Your task to perform on an android device: set the timer Image 0: 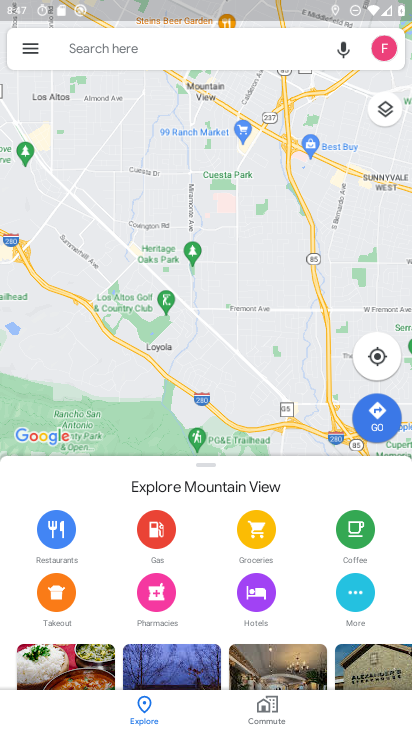
Step 0: press home button
Your task to perform on an android device: set the timer Image 1: 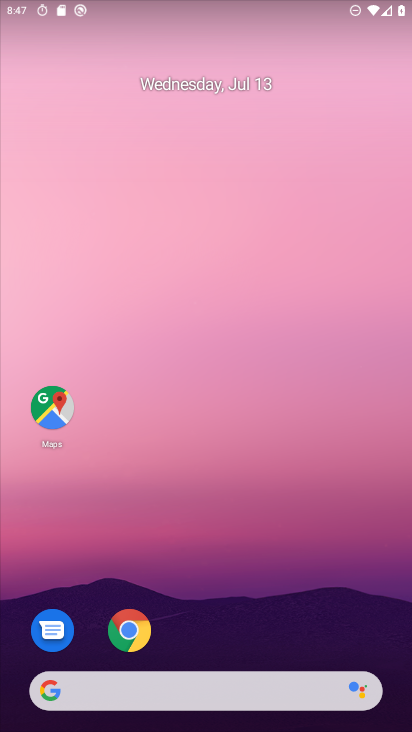
Step 1: drag from (340, 596) to (189, 68)
Your task to perform on an android device: set the timer Image 2: 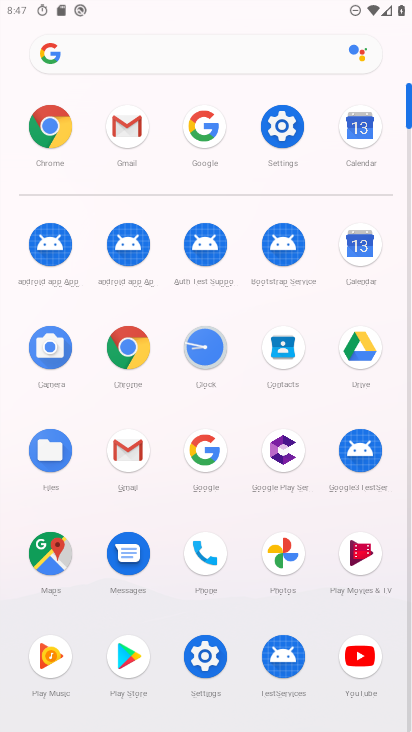
Step 2: click (209, 342)
Your task to perform on an android device: set the timer Image 3: 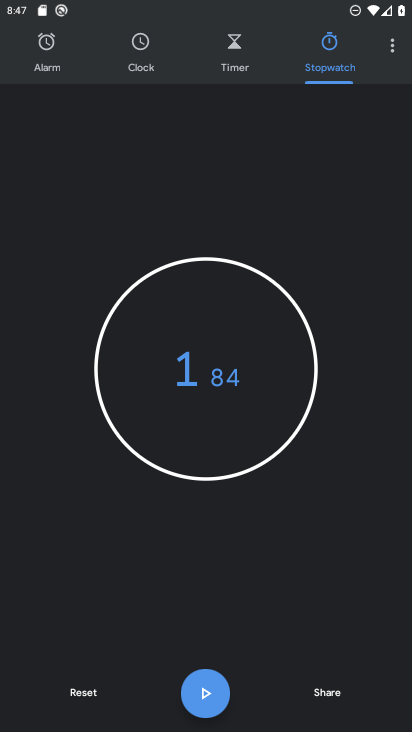
Step 3: click (228, 51)
Your task to perform on an android device: set the timer Image 4: 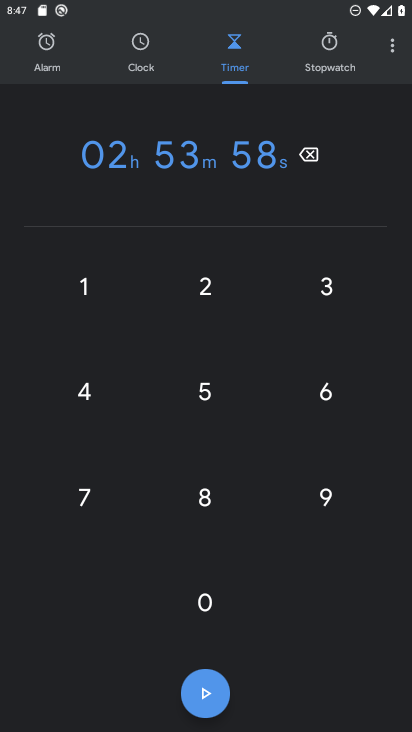
Step 4: task complete